Your task to perform on an android device: snooze an email in the gmail app Image 0: 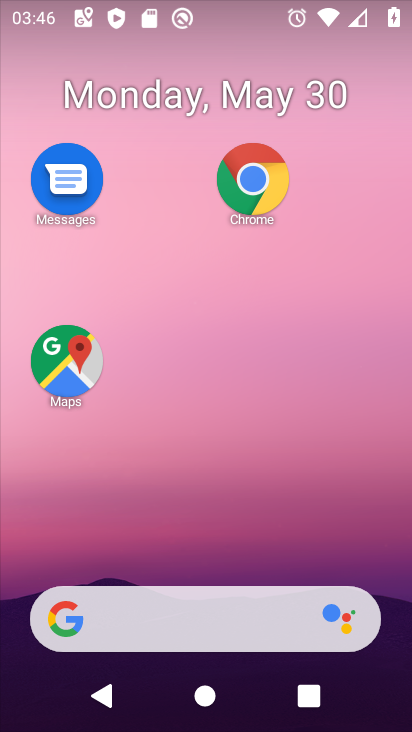
Step 0: drag from (212, 515) to (215, 10)
Your task to perform on an android device: snooze an email in the gmail app Image 1: 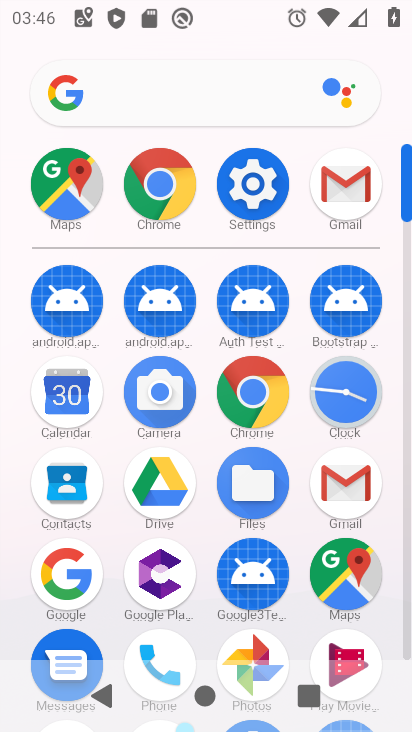
Step 1: click (345, 195)
Your task to perform on an android device: snooze an email in the gmail app Image 2: 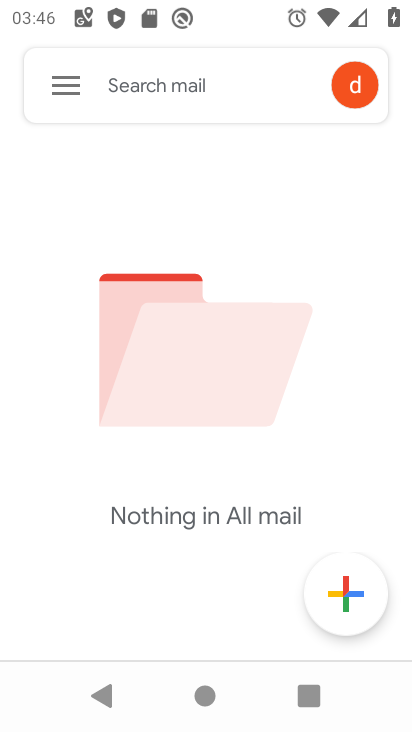
Step 2: click (65, 81)
Your task to perform on an android device: snooze an email in the gmail app Image 3: 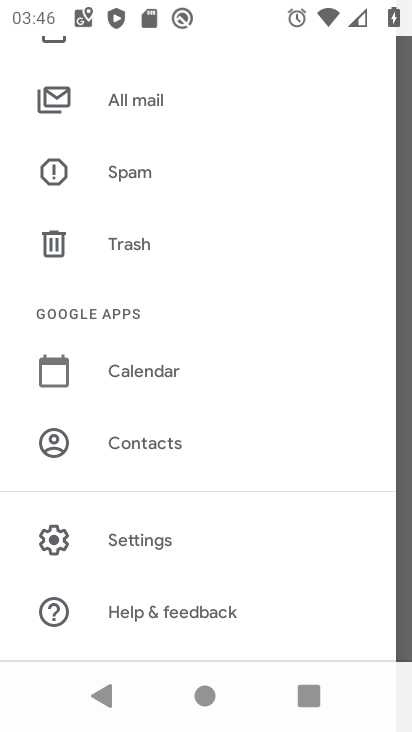
Step 3: drag from (179, 262) to (168, 724)
Your task to perform on an android device: snooze an email in the gmail app Image 4: 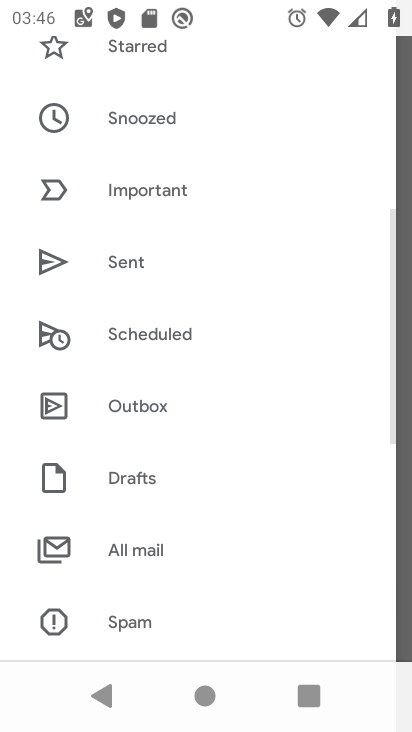
Step 4: click (127, 553)
Your task to perform on an android device: snooze an email in the gmail app Image 5: 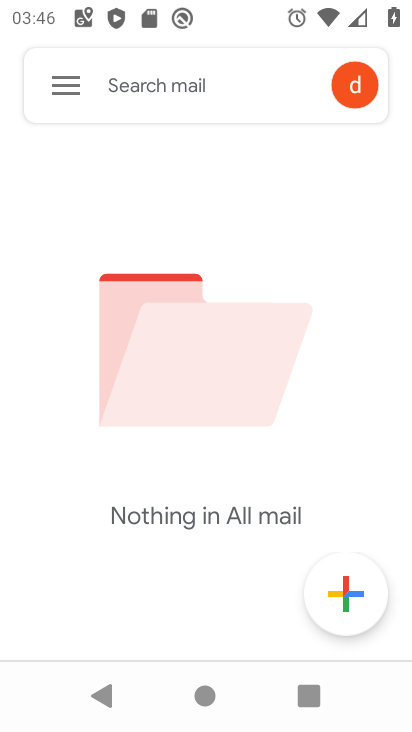
Step 5: task complete